Your task to perform on an android device: show emergency info Image 0: 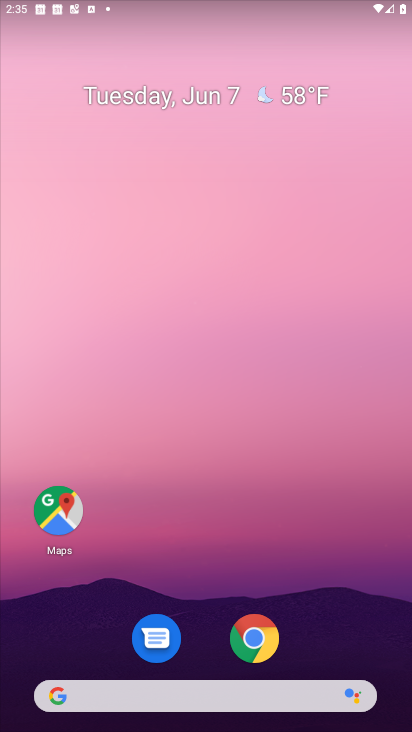
Step 0: drag from (203, 553) to (235, 193)
Your task to perform on an android device: show emergency info Image 1: 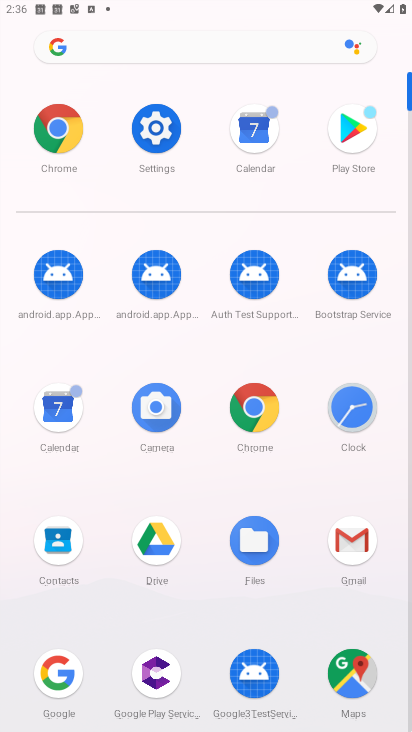
Step 1: click (171, 117)
Your task to perform on an android device: show emergency info Image 2: 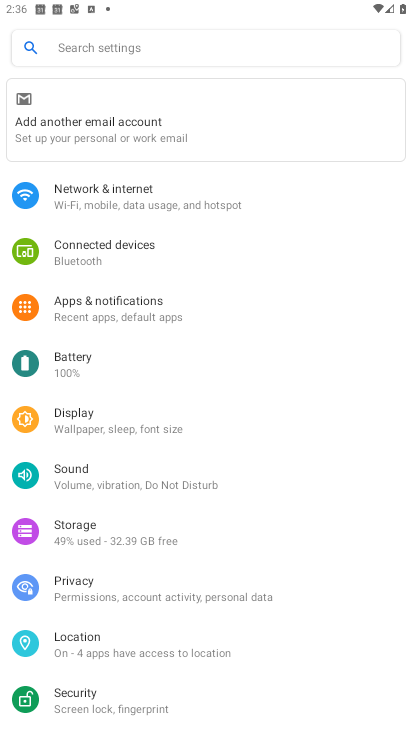
Step 2: drag from (161, 621) to (225, 296)
Your task to perform on an android device: show emergency info Image 3: 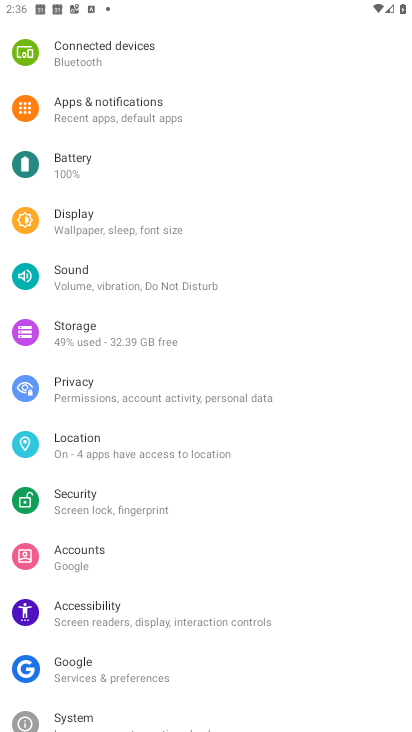
Step 3: drag from (70, 660) to (149, 201)
Your task to perform on an android device: show emergency info Image 4: 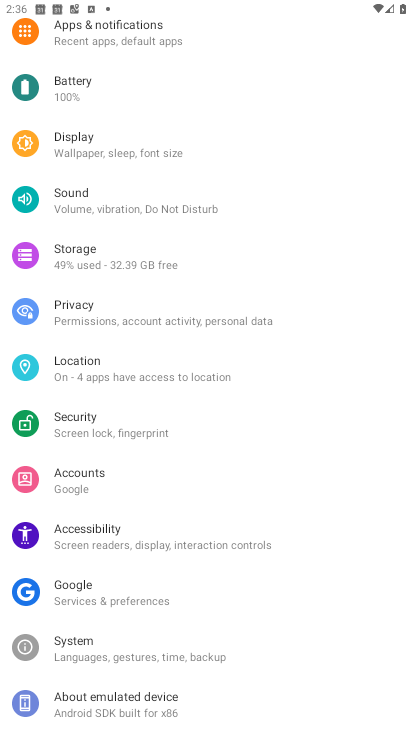
Step 4: click (109, 695)
Your task to perform on an android device: show emergency info Image 5: 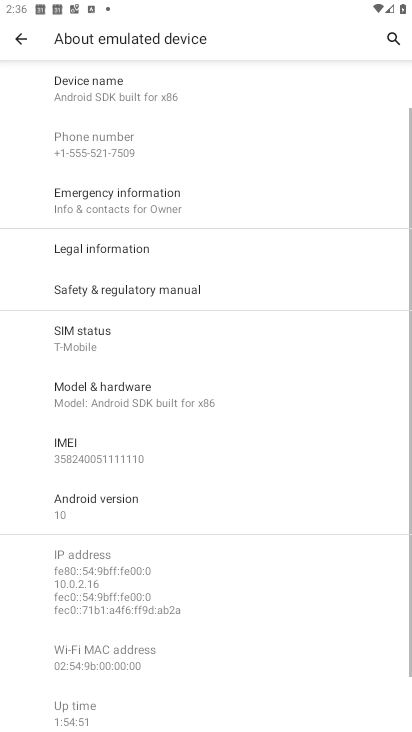
Step 5: drag from (170, 676) to (180, 569)
Your task to perform on an android device: show emergency info Image 6: 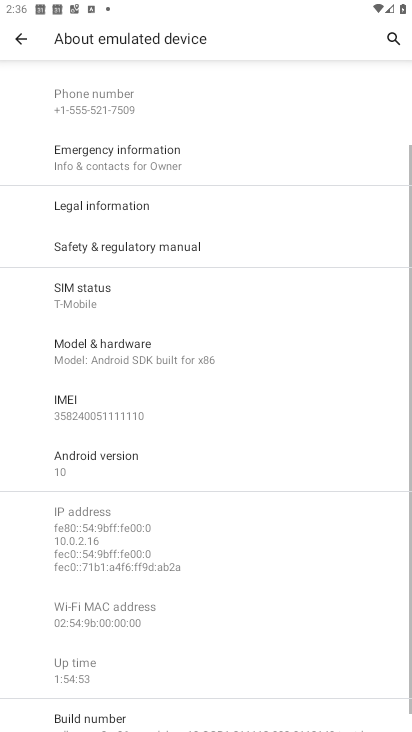
Step 6: click (199, 167)
Your task to perform on an android device: show emergency info Image 7: 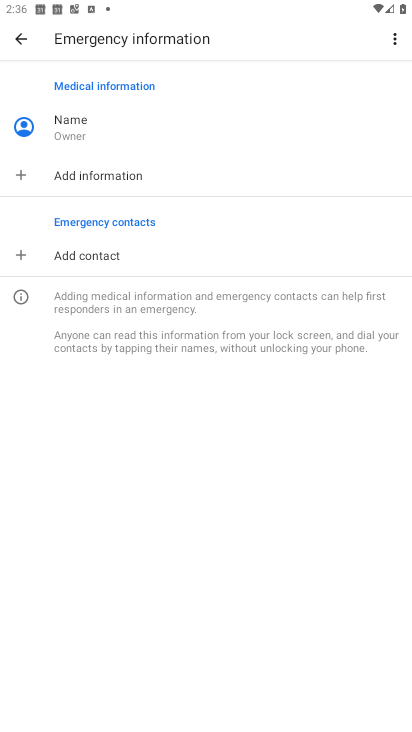
Step 7: task complete